Your task to perform on an android device: What is the recent news? Image 0: 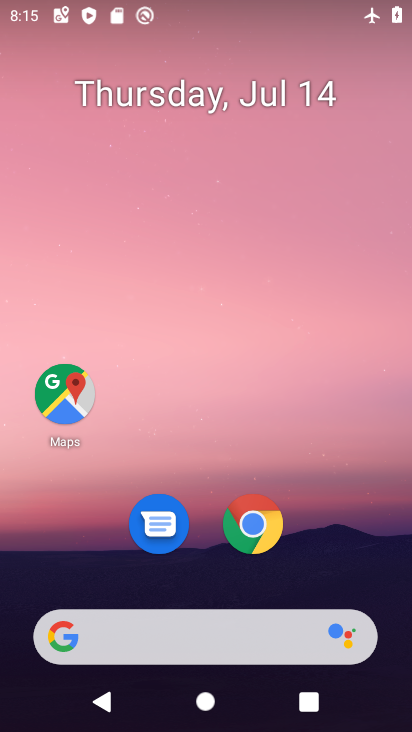
Step 0: drag from (304, 553) to (340, 1)
Your task to perform on an android device: What is the recent news? Image 1: 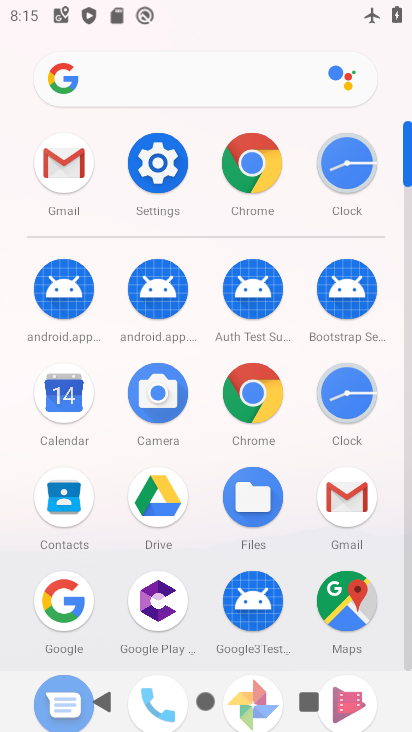
Step 1: press back button
Your task to perform on an android device: What is the recent news? Image 2: 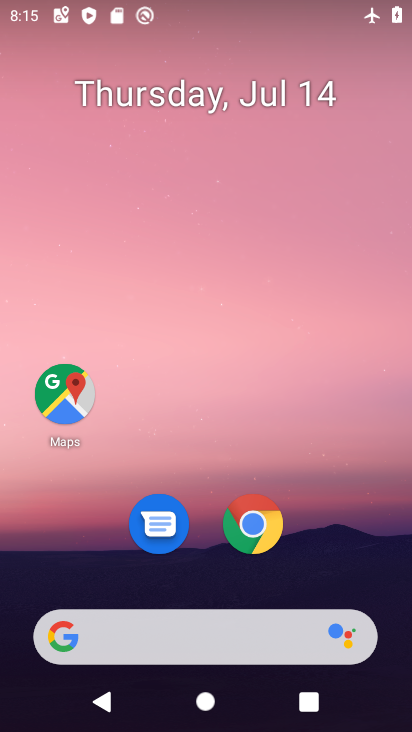
Step 2: click (254, 642)
Your task to perform on an android device: What is the recent news? Image 3: 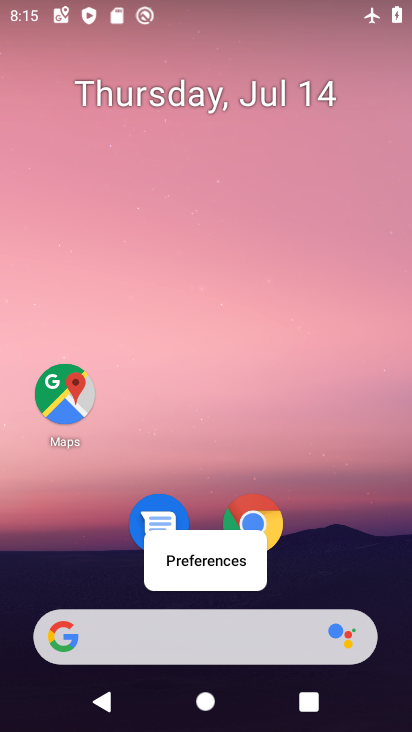
Step 3: click (218, 644)
Your task to perform on an android device: What is the recent news? Image 4: 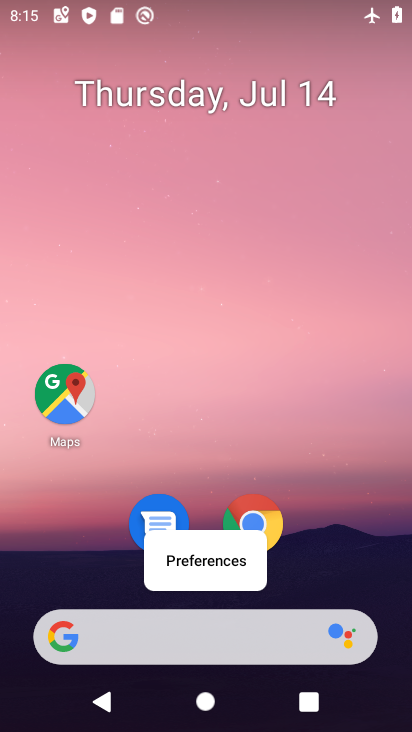
Step 4: click (182, 649)
Your task to perform on an android device: What is the recent news? Image 5: 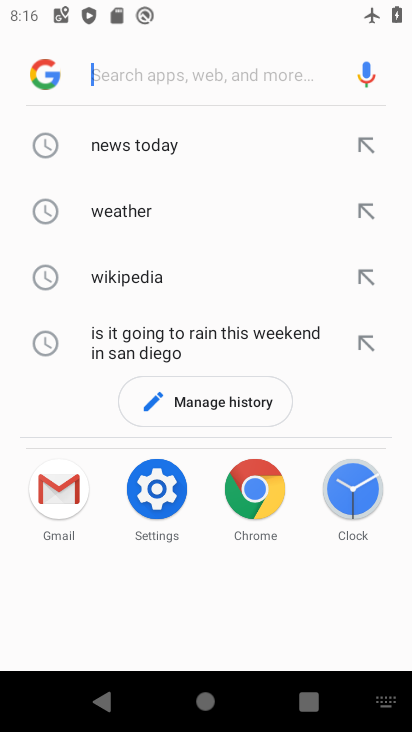
Step 5: click (149, 139)
Your task to perform on an android device: What is the recent news? Image 6: 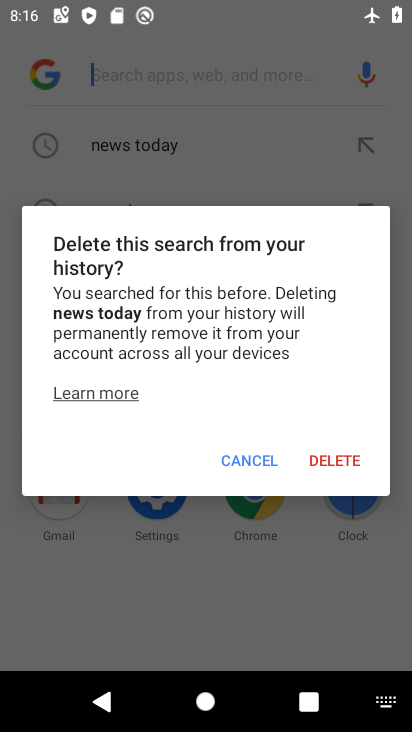
Step 6: click (253, 453)
Your task to perform on an android device: What is the recent news? Image 7: 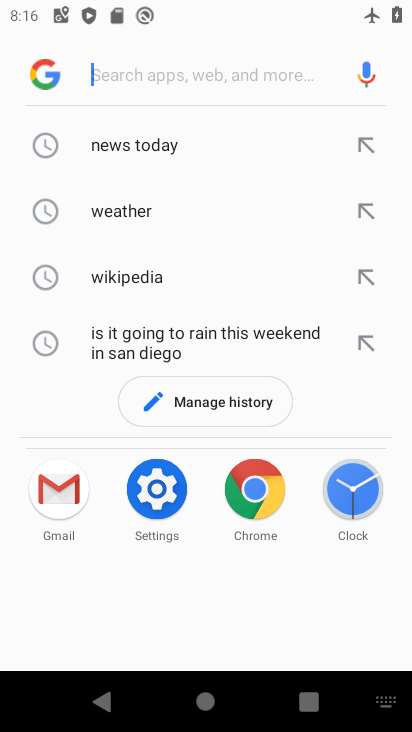
Step 7: click (47, 145)
Your task to perform on an android device: What is the recent news? Image 8: 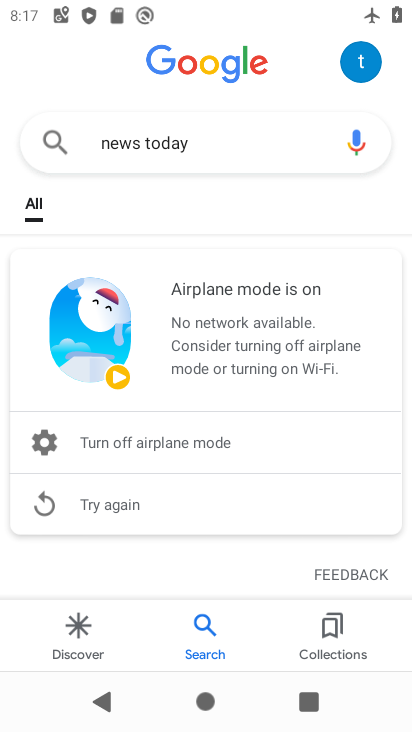
Step 8: task complete